Your task to perform on an android device: Search for 12ft 120W LED tube light on home depot Image 0: 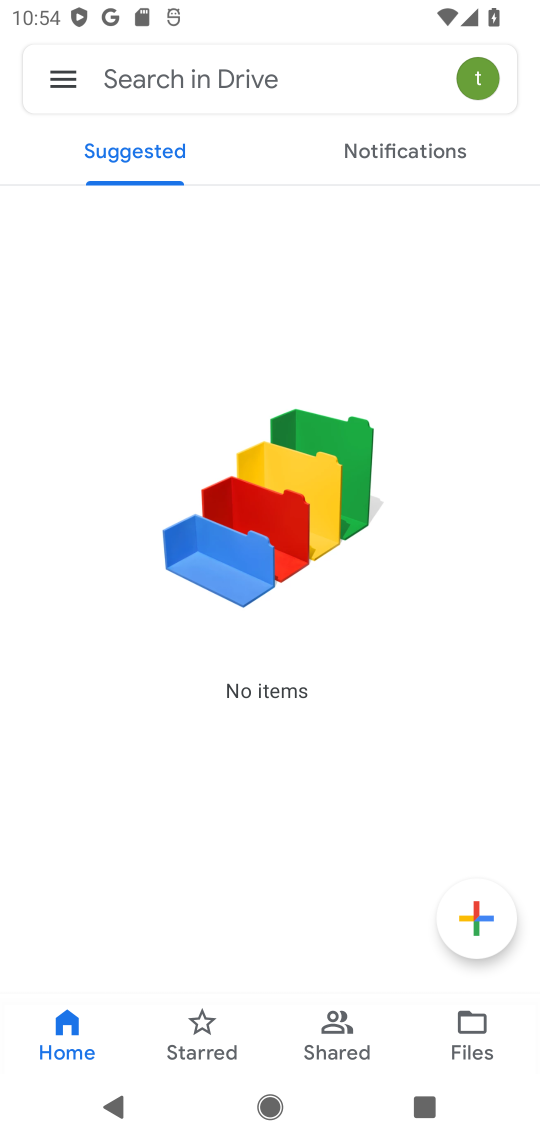
Step 0: press home button
Your task to perform on an android device: Search for 12ft 120W LED tube light on home depot Image 1: 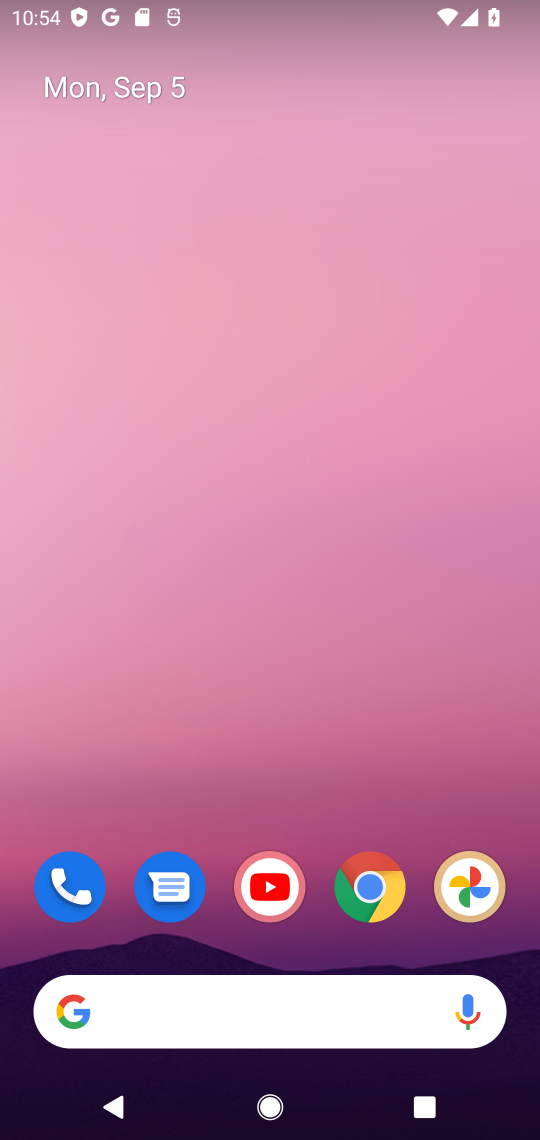
Step 1: click (382, 905)
Your task to perform on an android device: Search for 12ft 120W LED tube light on home depot Image 2: 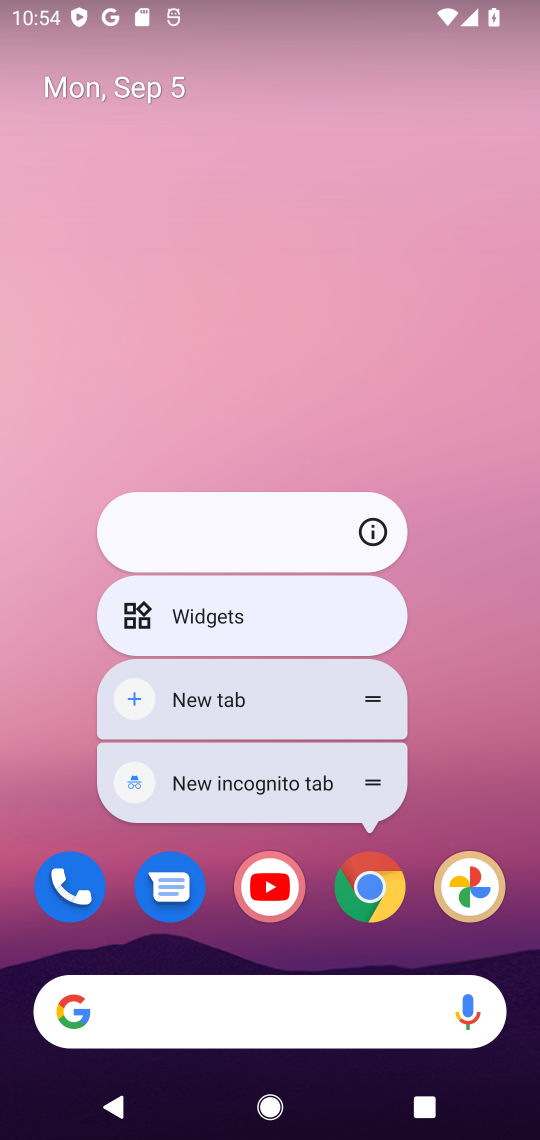
Step 2: click (383, 873)
Your task to perform on an android device: Search for 12ft 120W LED tube light on home depot Image 3: 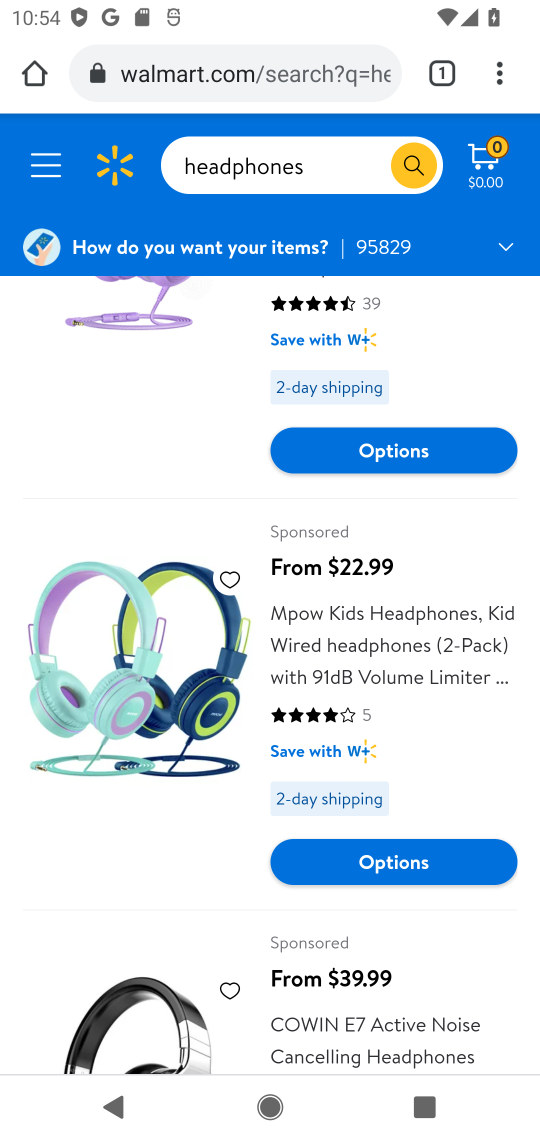
Step 3: click (277, 39)
Your task to perform on an android device: Search for 12ft 120W LED tube light on home depot Image 4: 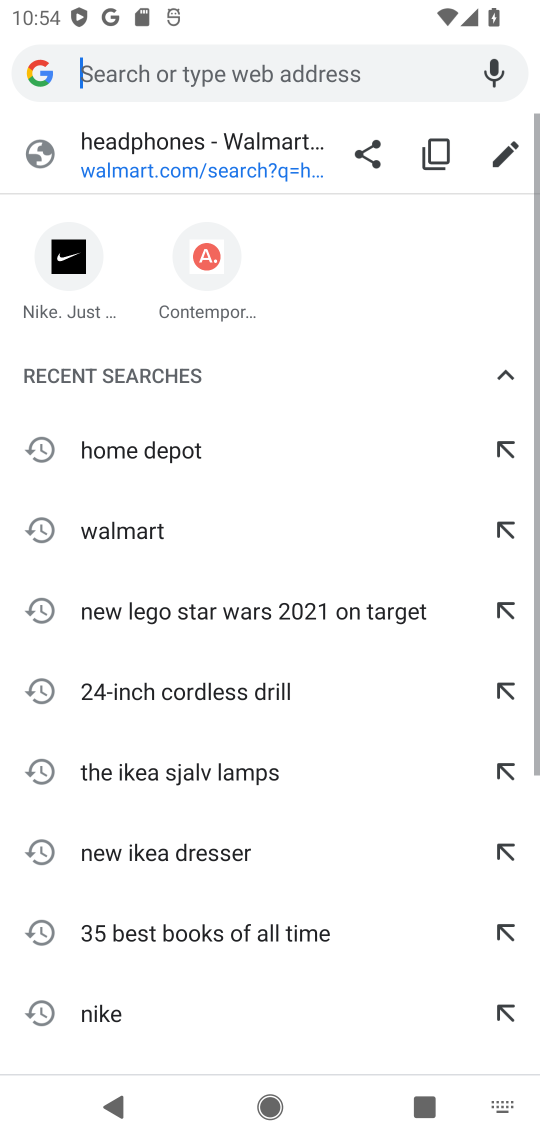
Step 4: click (286, 75)
Your task to perform on an android device: Search for 12ft 120W LED tube light on home depot Image 5: 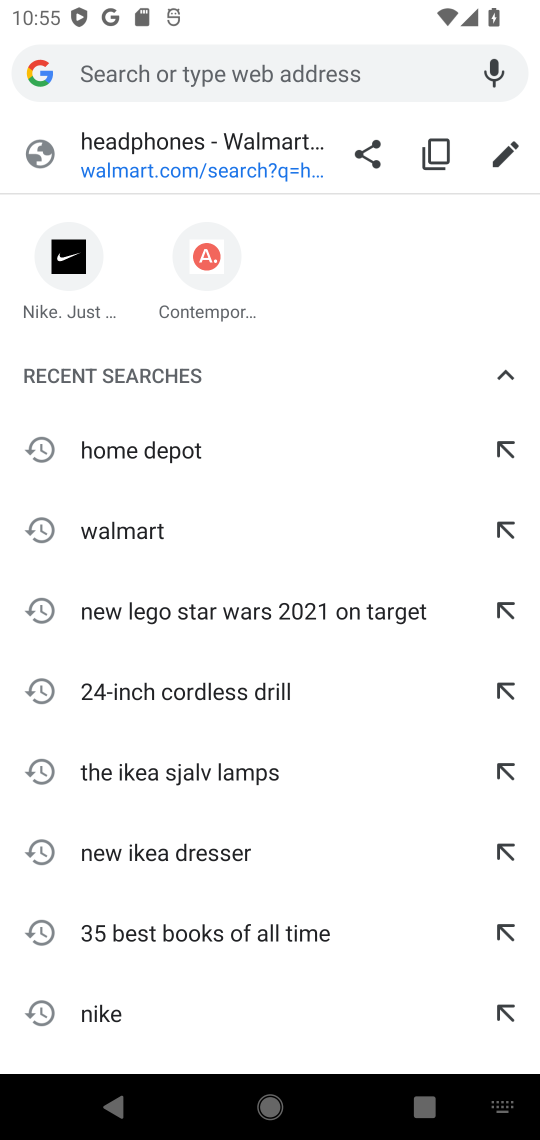
Step 5: type "home depot"
Your task to perform on an android device: Search for 12ft 120W LED tube light on home depot Image 6: 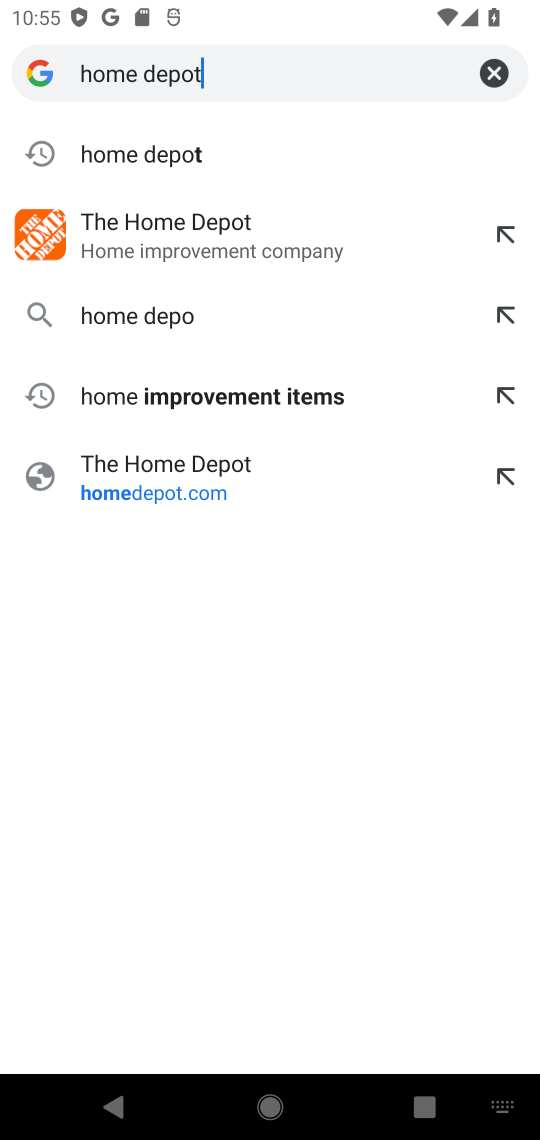
Step 6: type ""
Your task to perform on an android device: Search for 12ft 120W LED tube light on home depot Image 7: 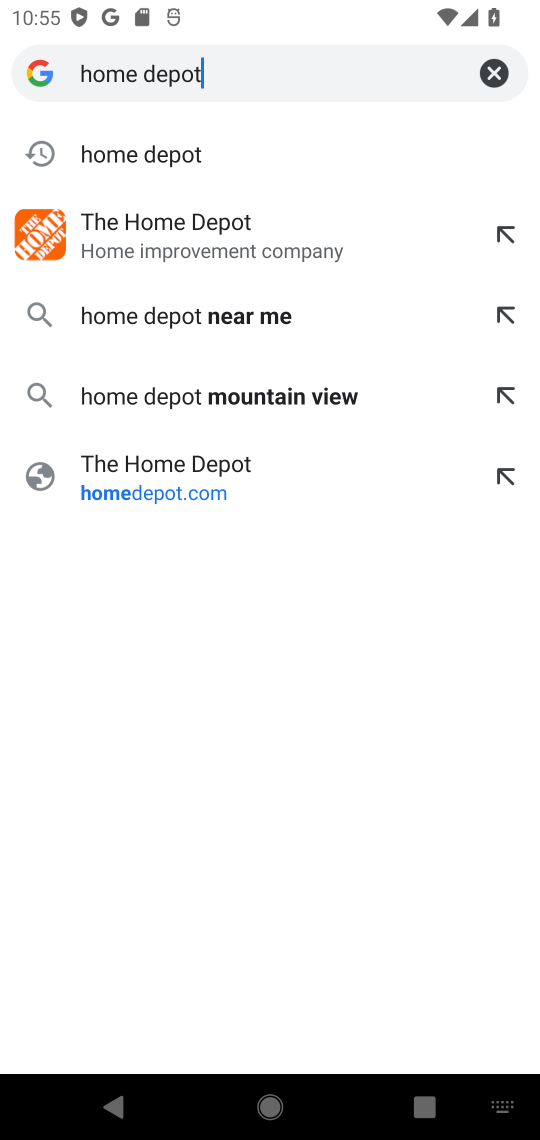
Step 7: press enter
Your task to perform on an android device: Search for 12ft 120W LED tube light on home depot Image 8: 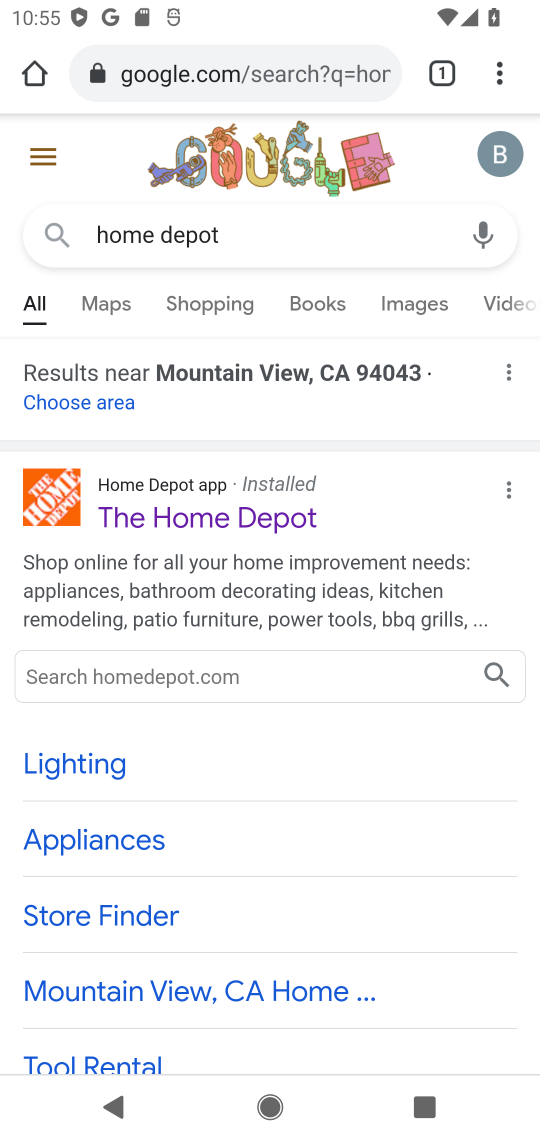
Step 8: click (461, 645)
Your task to perform on an android device: Search for 12ft 120W LED tube light on home depot Image 9: 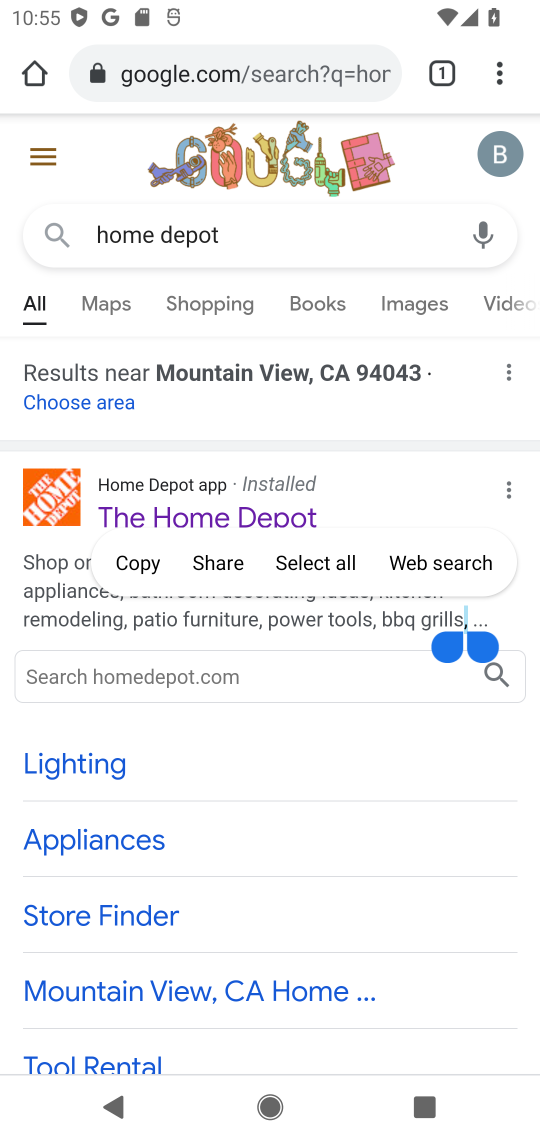
Step 9: click (221, 506)
Your task to perform on an android device: Search for 12ft 120W LED tube light on home depot Image 10: 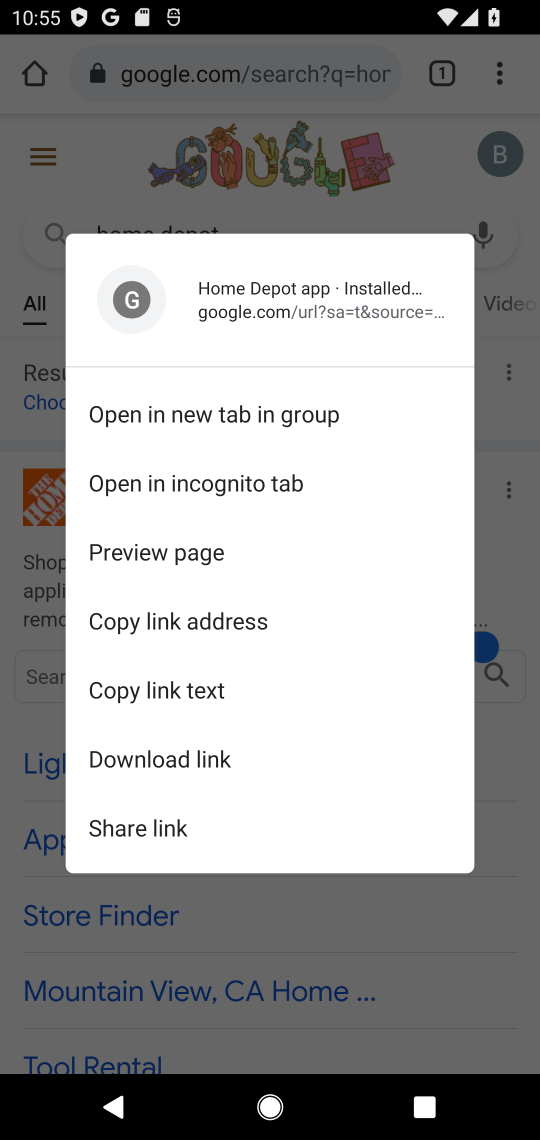
Step 10: click (34, 642)
Your task to perform on an android device: Search for 12ft 120W LED tube light on home depot Image 11: 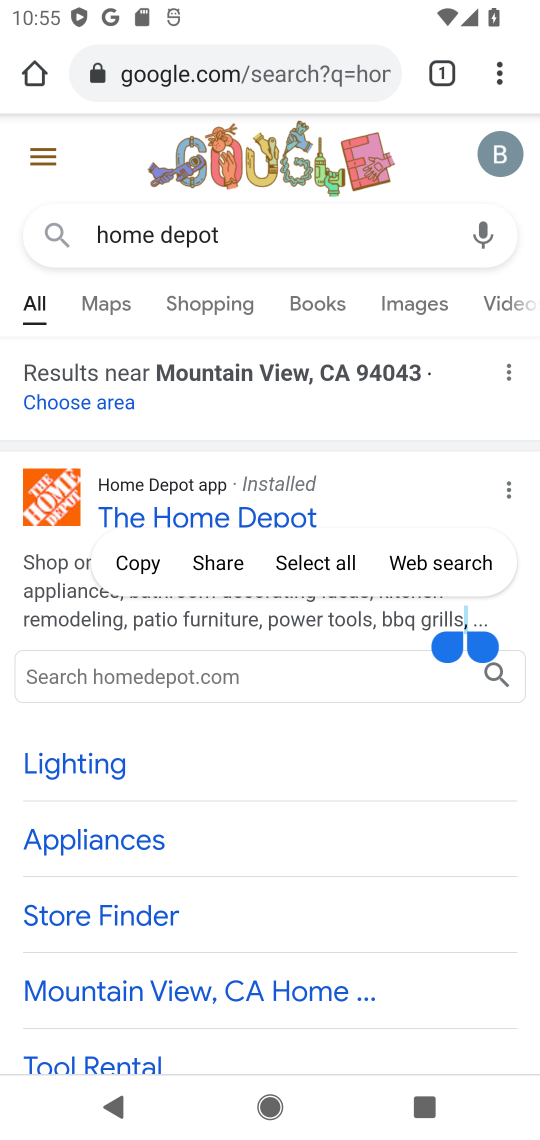
Step 11: click (175, 518)
Your task to perform on an android device: Search for 12ft 120W LED tube light on home depot Image 12: 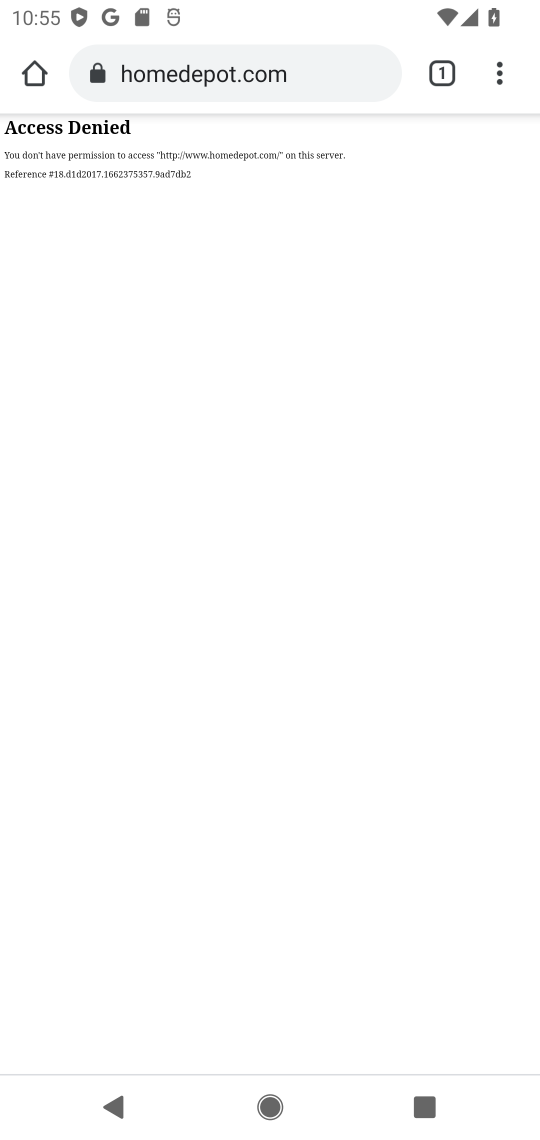
Step 12: press back button
Your task to perform on an android device: Search for 12ft 120W LED tube light on home depot Image 13: 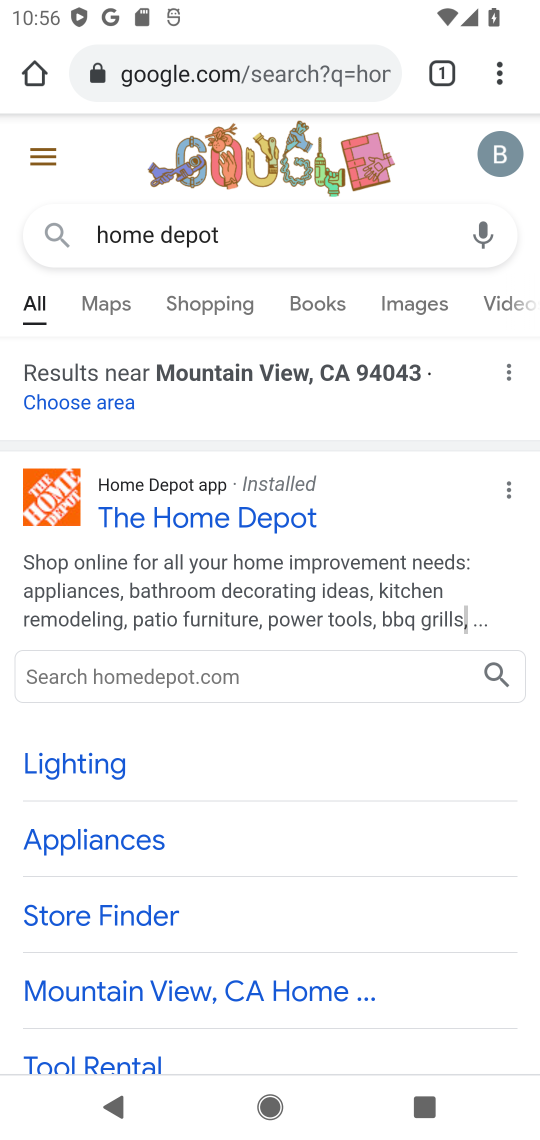
Step 13: click (184, 531)
Your task to perform on an android device: Search for 12ft 120W LED tube light on home depot Image 14: 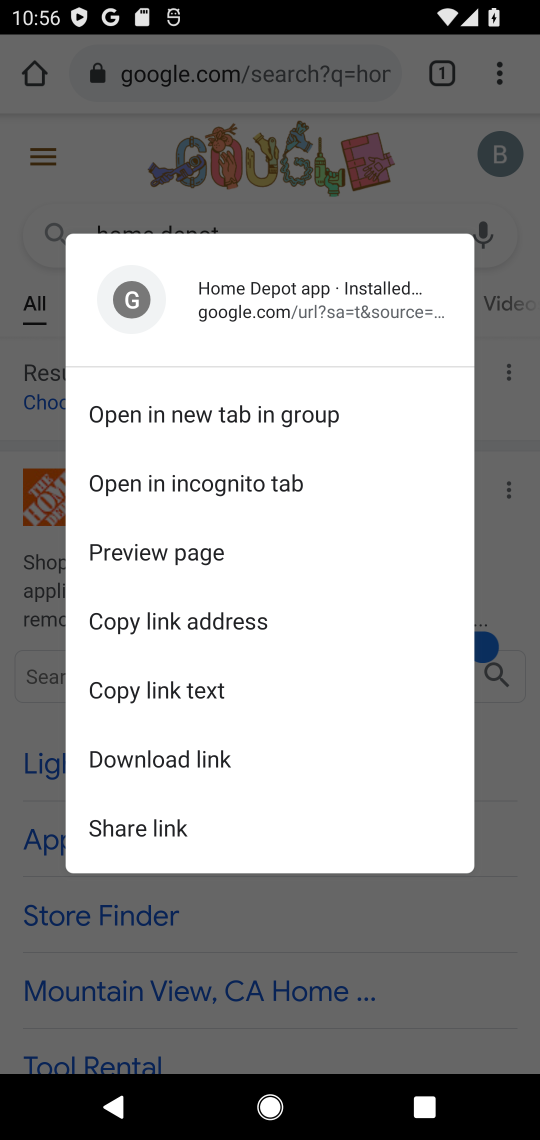
Step 14: click (28, 552)
Your task to perform on an android device: Search for 12ft 120W LED tube light on home depot Image 15: 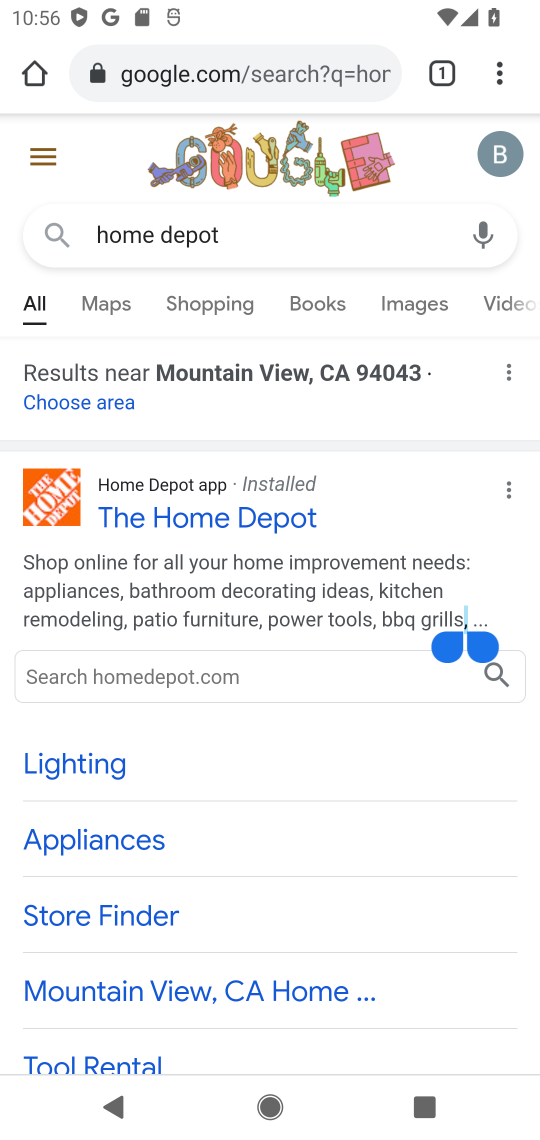
Step 15: click (281, 521)
Your task to perform on an android device: Search for 12ft 120W LED tube light on home depot Image 16: 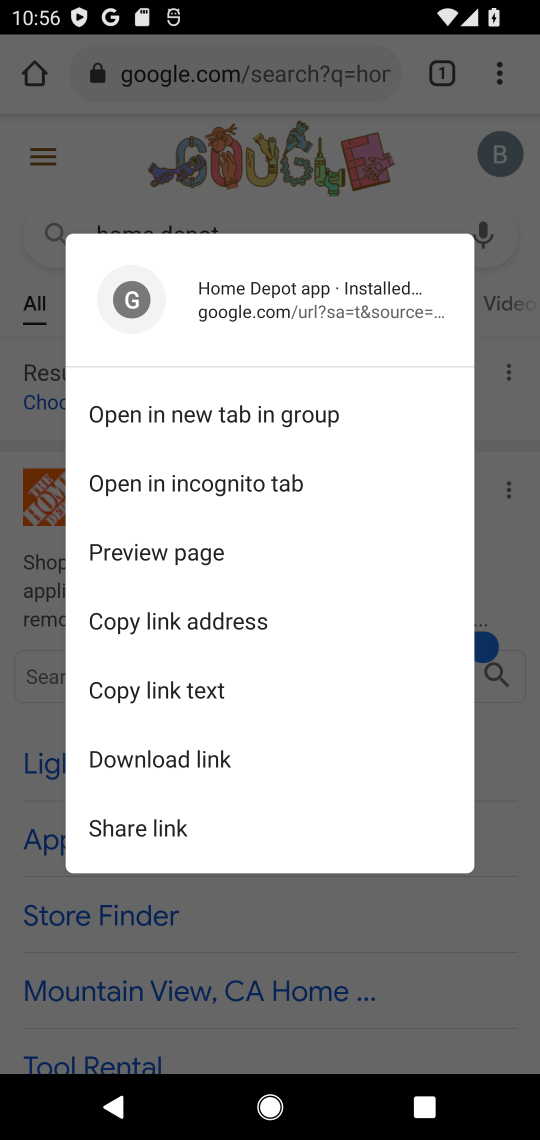
Step 16: click (494, 555)
Your task to perform on an android device: Search for 12ft 120W LED tube light on home depot Image 17: 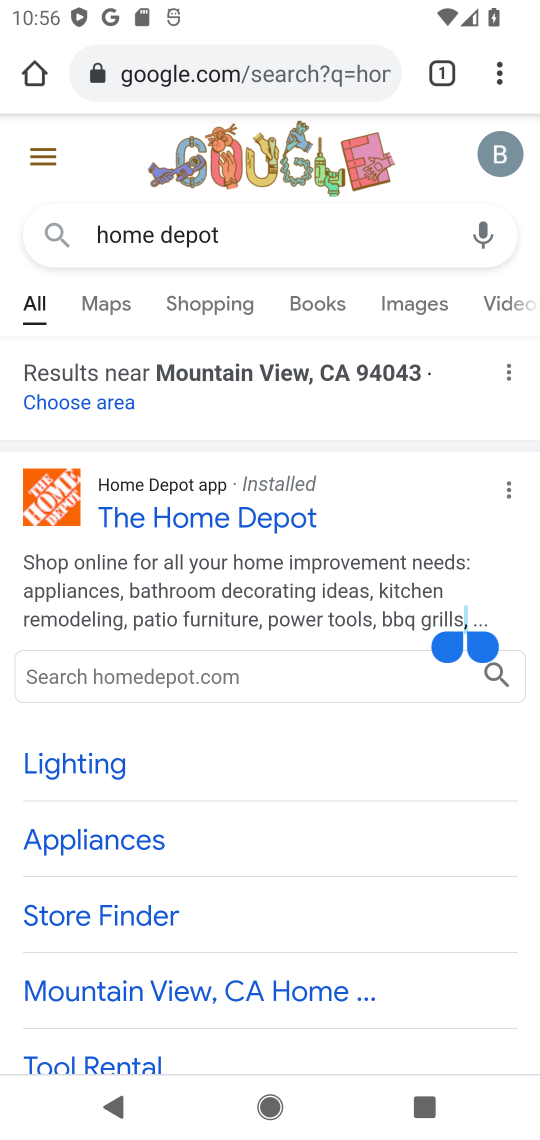
Step 17: click (318, 633)
Your task to perform on an android device: Search for 12ft 120W LED tube light on home depot Image 18: 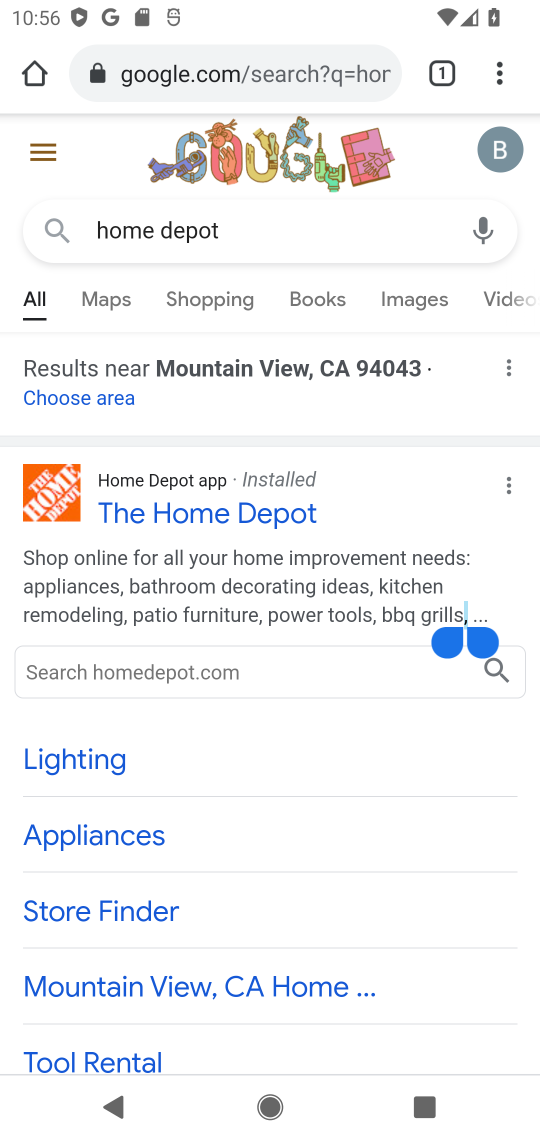
Step 18: click (276, 513)
Your task to perform on an android device: Search for 12ft 120W LED tube light on home depot Image 19: 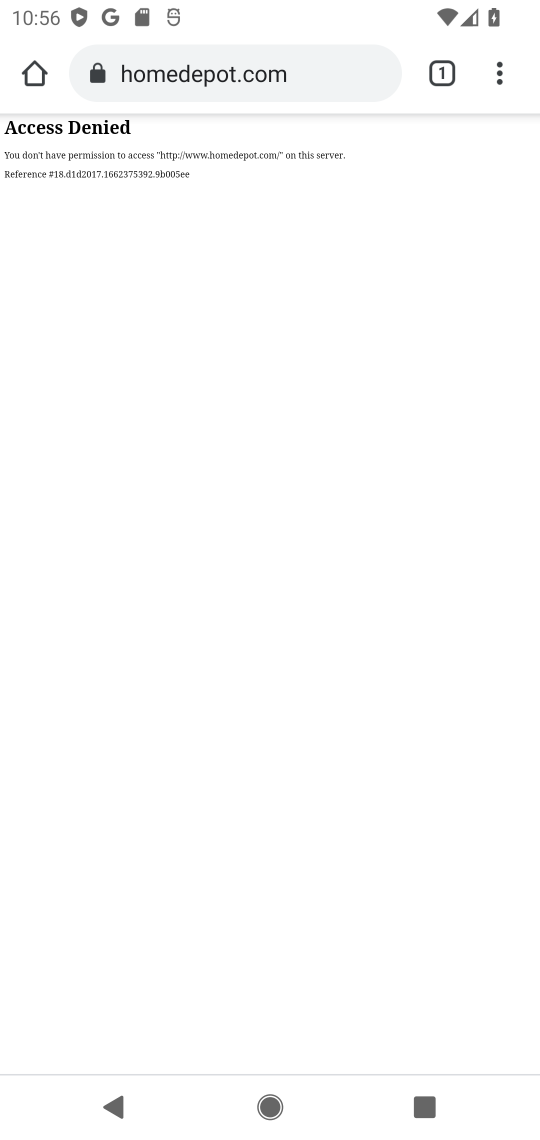
Step 19: task complete